Your task to perform on an android device: Open the calendar and show me this week's events Image 0: 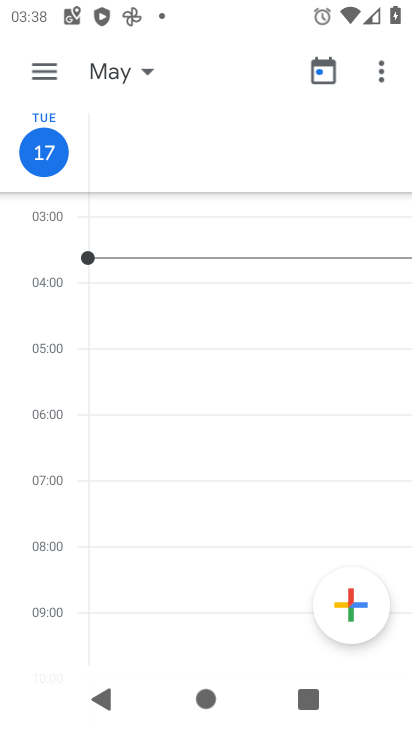
Step 0: press home button
Your task to perform on an android device: Open the calendar and show me this week's events Image 1: 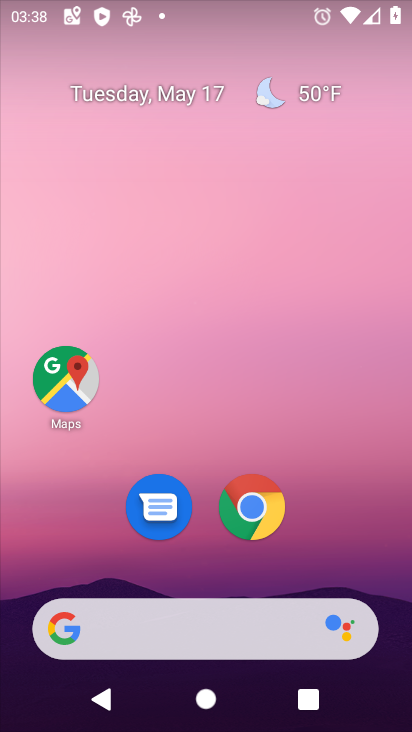
Step 1: drag from (333, 504) to (223, 37)
Your task to perform on an android device: Open the calendar and show me this week's events Image 2: 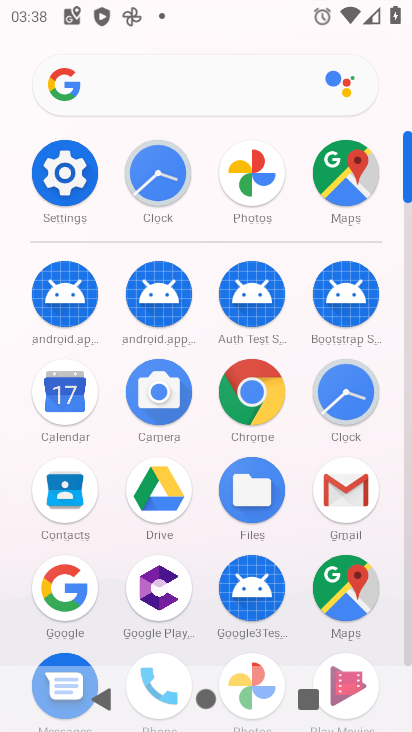
Step 2: click (49, 406)
Your task to perform on an android device: Open the calendar and show me this week's events Image 3: 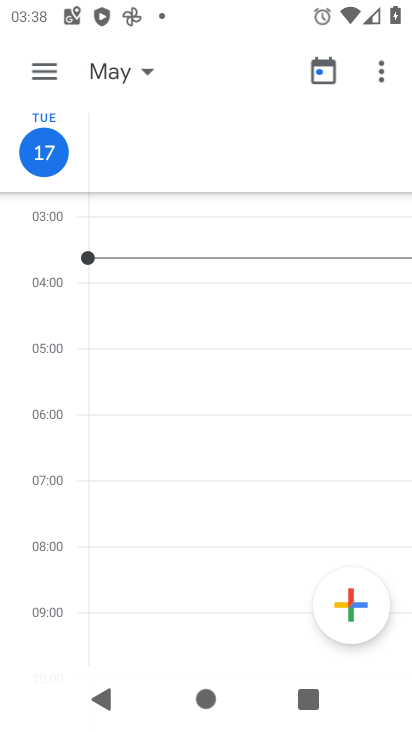
Step 3: click (50, 58)
Your task to perform on an android device: Open the calendar and show me this week's events Image 4: 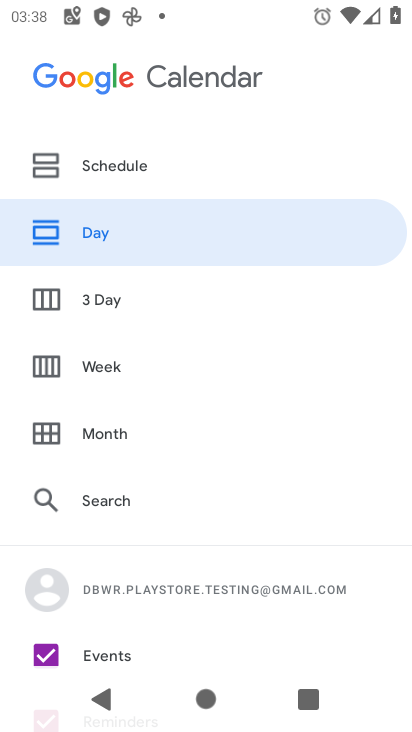
Step 4: click (117, 376)
Your task to perform on an android device: Open the calendar and show me this week's events Image 5: 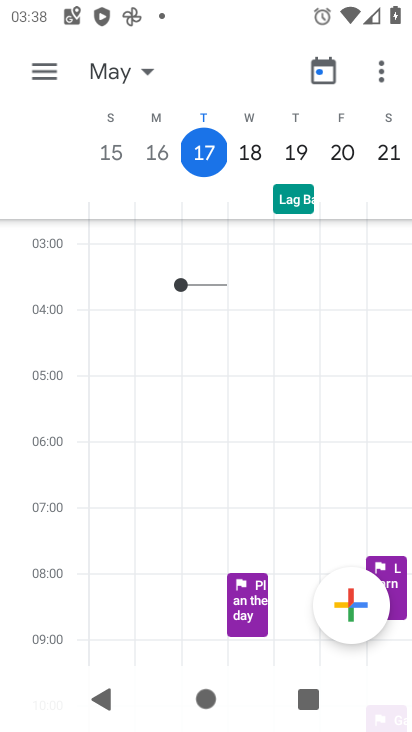
Step 5: task complete